Your task to perform on an android device: Open CNN.com Image 0: 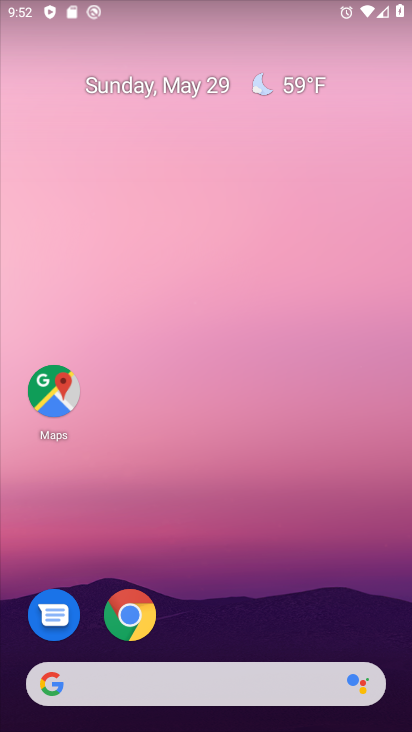
Step 0: drag from (254, 445) to (282, 130)
Your task to perform on an android device: Open CNN.com Image 1: 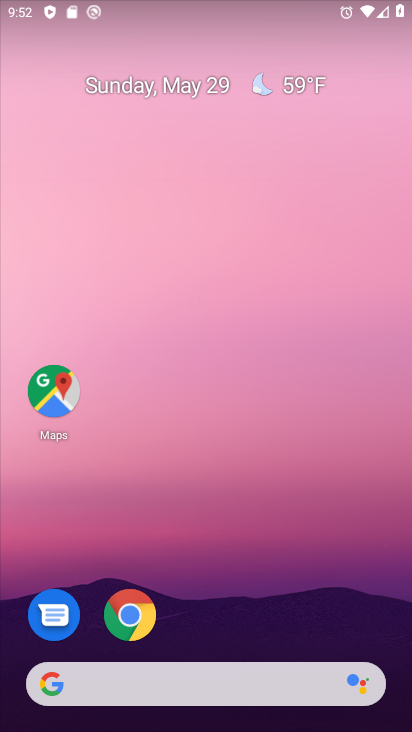
Step 1: drag from (238, 594) to (175, 26)
Your task to perform on an android device: Open CNN.com Image 2: 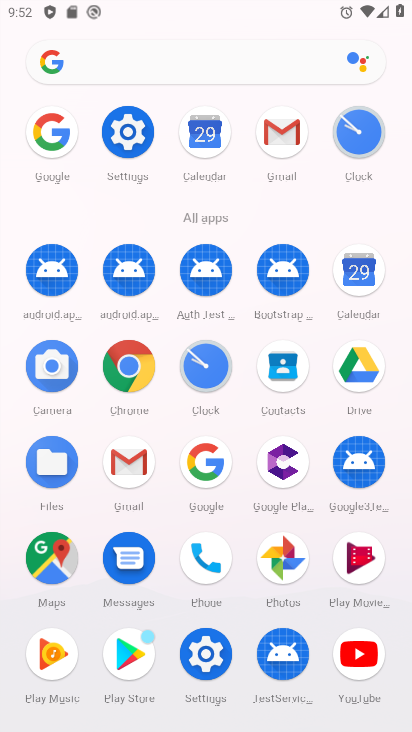
Step 2: click (60, 131)
Your task to perform on an android device: Open CNN.com Image 3: 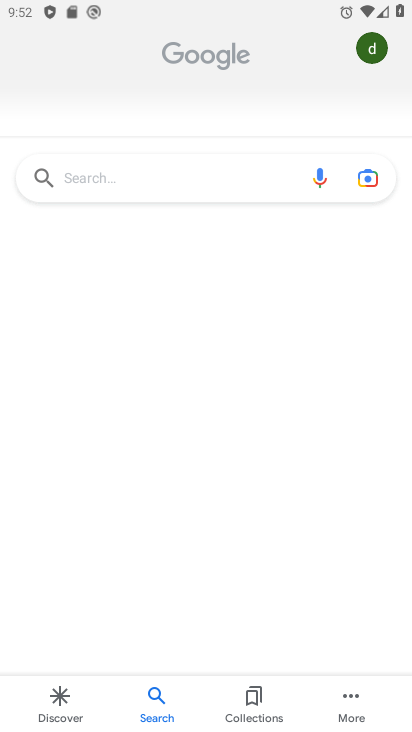
Step 3: click (127, 188)
Your task to perform on an android device: Open CNN.com Image 4: 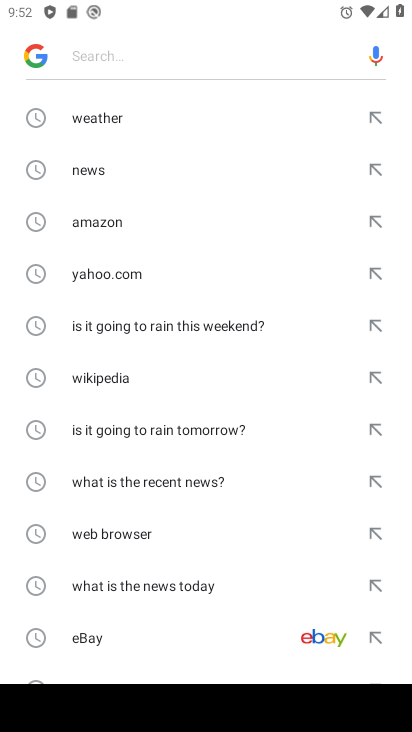
Step 4: drag from (179, 600) to (222, 102)
Your task to perform on an android device: Open CNN.com Image 5: 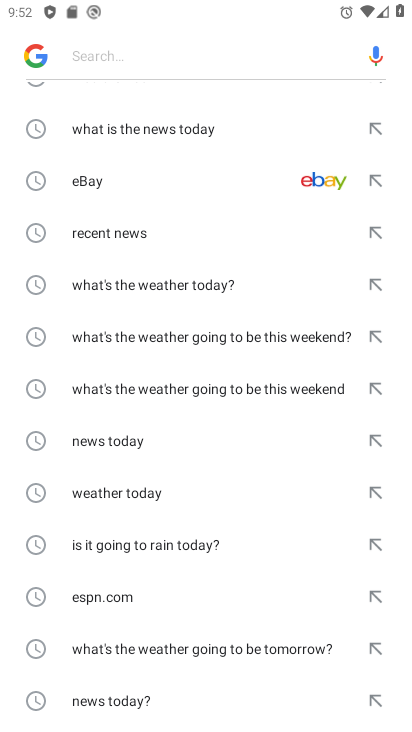
Step 5: drag from (181, 670) to (157, 233)
Your task to perform on an android device: Open CNN.com Image 6: 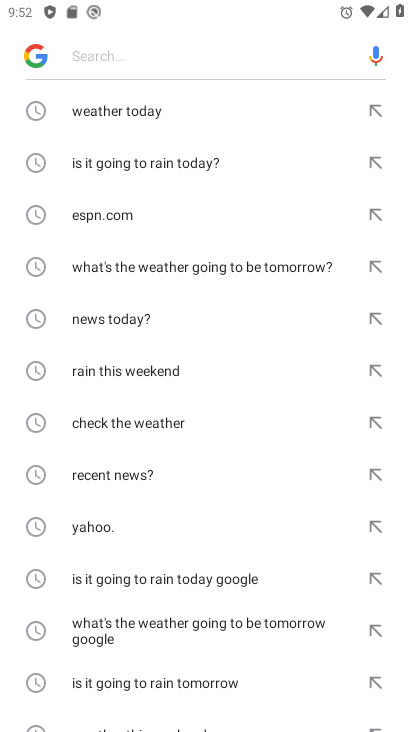
Step 6: drag from (197, 658) to (173, 260)
Your task to perform on an android device: Open CNN.com Image 7: 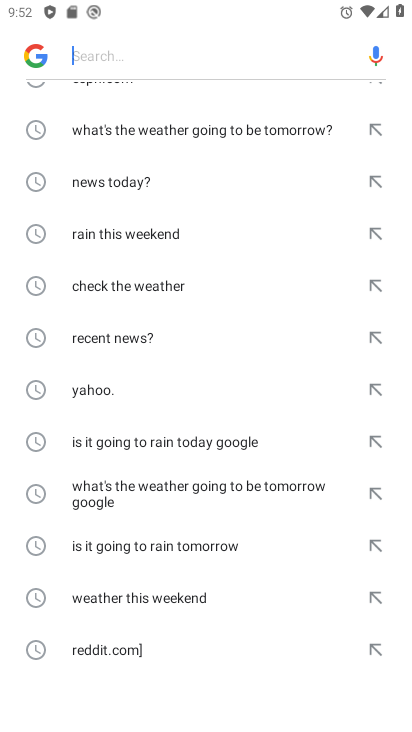
Step 7: drag from (132, 212) to (202, 461)
Your task to perform on an android device: Open CNN.com Image 8: 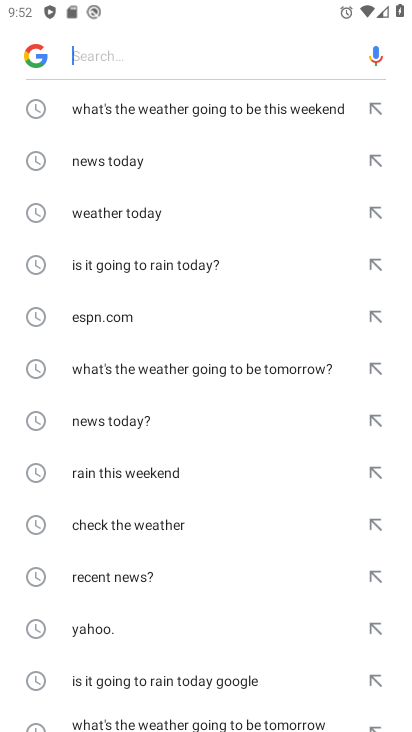
Step 8: drag from (144, 152) to (198, 464)
Your task to perform on an android device: Open CNN.com Image 9: 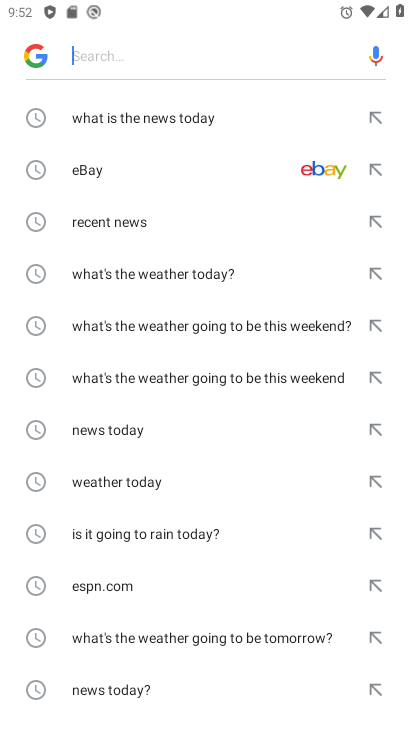
Step 9: drag from (116, 143) to (167, 500)
Your task to perform on an android device: Open CNN.com Image 10: 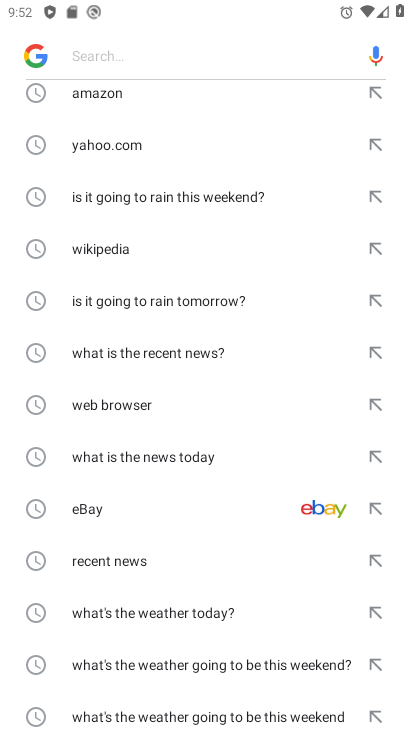
Step 10: drag from (99, 224) to (207, 602)
Your task to perform on an android device: Open CNN.com Image 11: 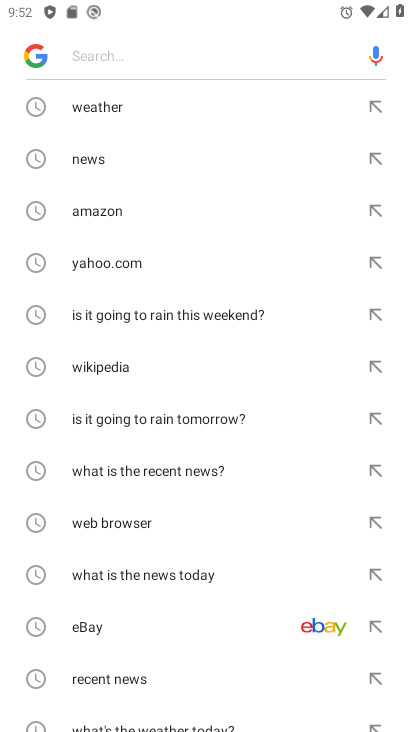
Step 11: type "cnn.com"
Your task to perform on an android device: Open CNN.com Image 12: 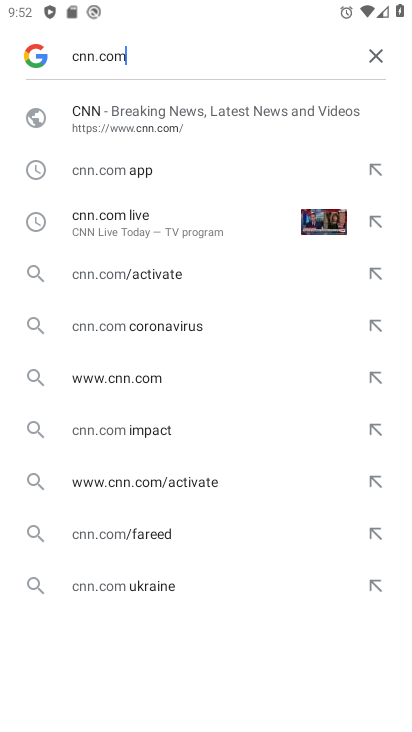
Step 12: click (116, 113)
Your task to perform on an android device: Open CNN.com Image 13: 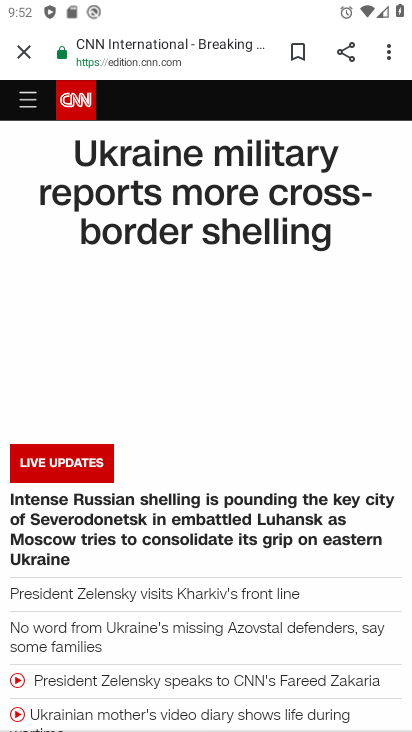
Step 13: task complete